Your task to perform on an android device: clear all cookies in the chrome app Image 0: 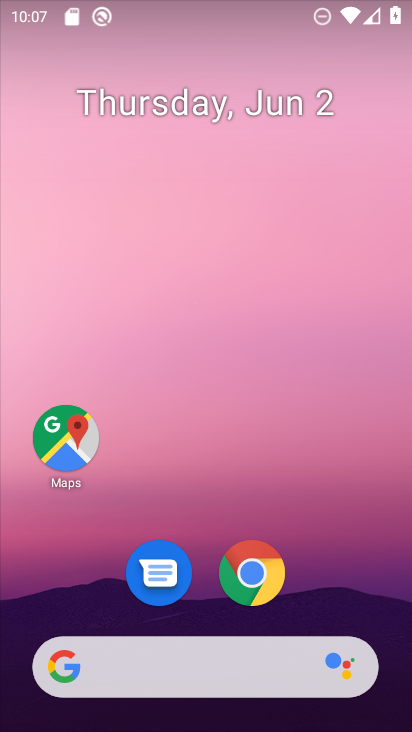
Step 0: click (254, 572)
Your task to perform on an android device: clear all cookies in the chrome app Image 1: 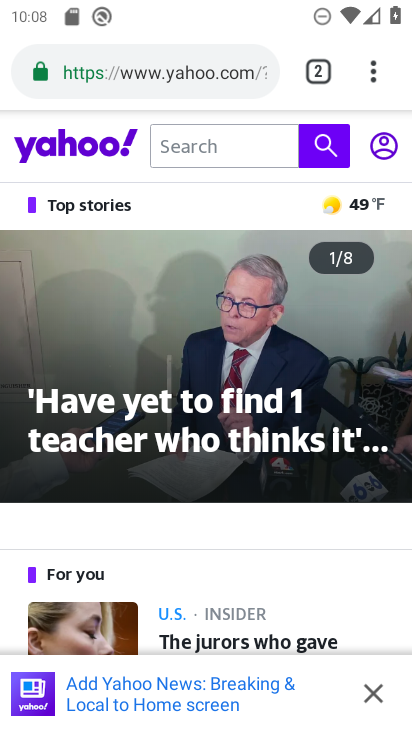
Step 1: click (368, 61)
Your task to perform on an android device: clear all cookies in the chrome app Image 2: 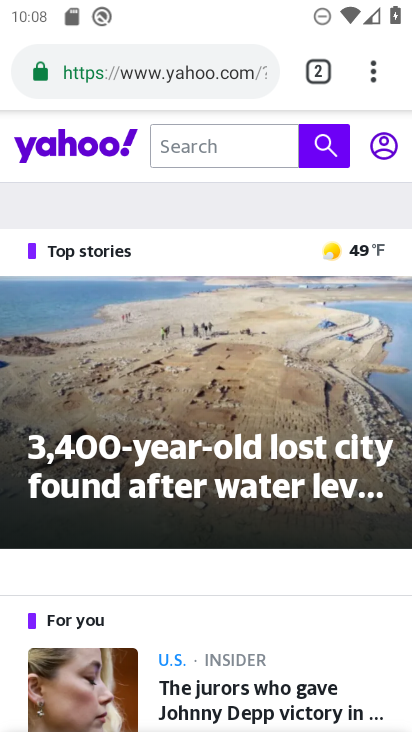
Step 2: drag from (379, 65) to (204, 472)
Your task to perform on an android device: clear all cookies in the chrome app Image 3: 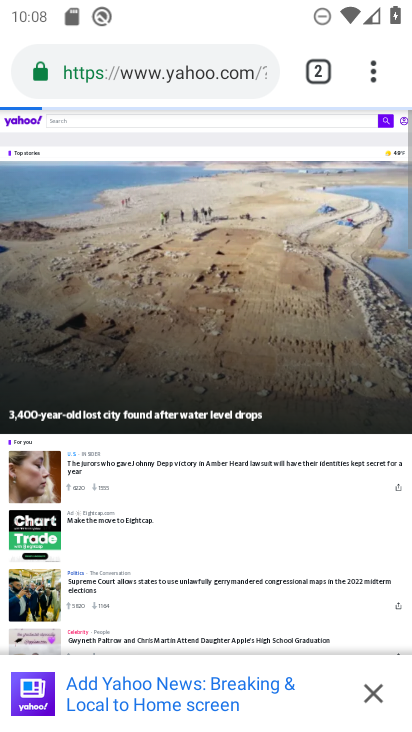
Step 3: drag from (140, 231) to (288, 159)
Your task to perform on an android device: clear all cookies in the chrome app Image 4: 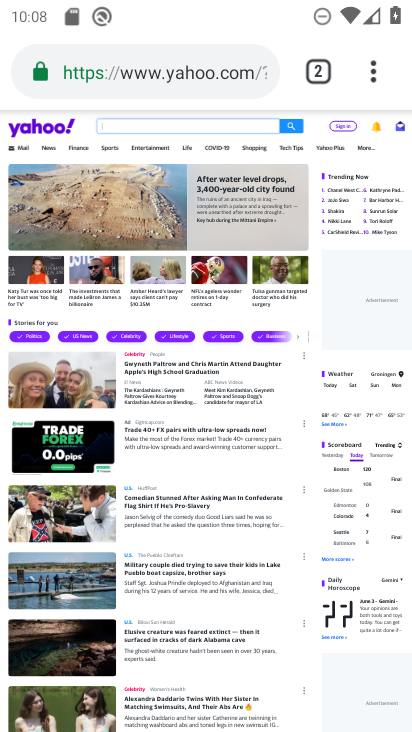
Step 4: drag from (376, 61) to (133, 403)
Your task to perform on an android device: clear all cookies in the chrome app Image 5: 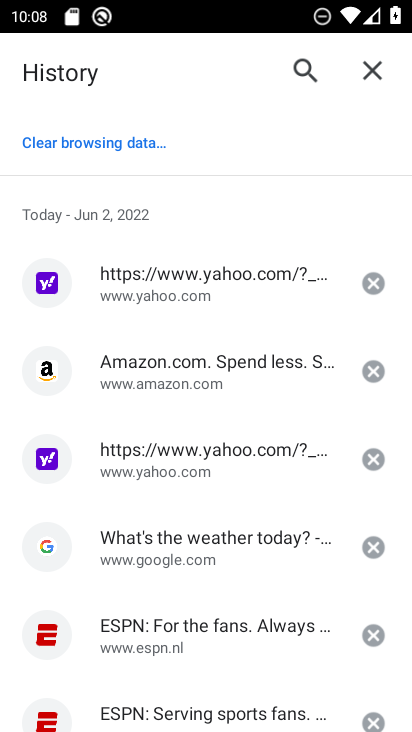
Step 5: click (104, 143)
Your task to perform on an android device: clear all cookies in the chrome app Image 6: 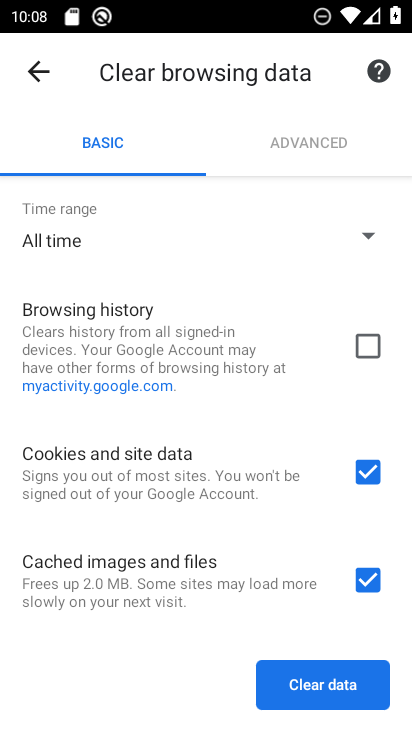
Step 6: click (321, 688)
Your task to perform on an android device: clear all cookies in the chrome app Image 7: 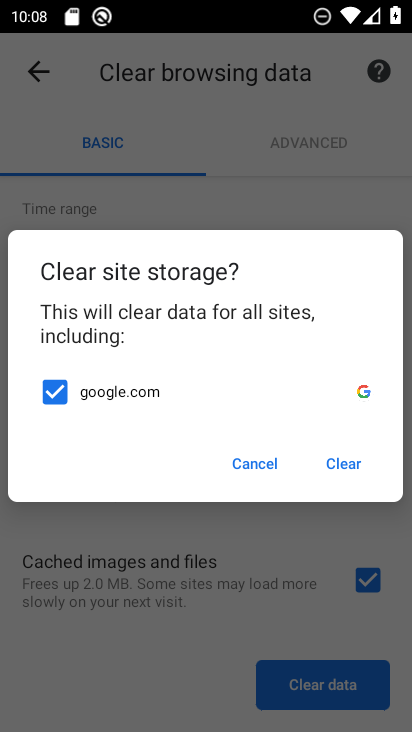
Step 7: click (339, 476)
Your task to perform on an android device: clear all cookies in the chrome app Image 8: 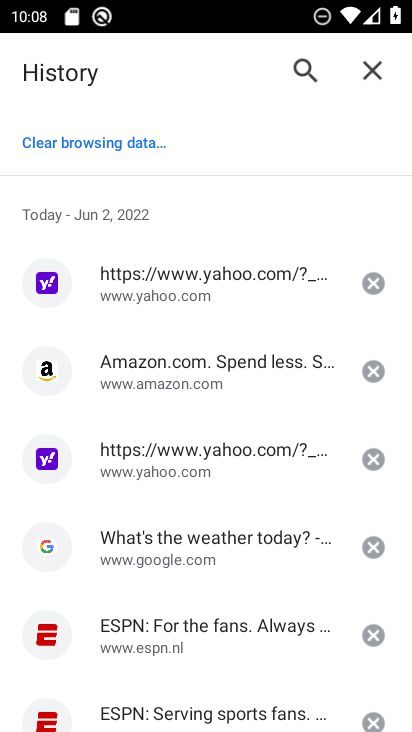
Step 8: task complete